Your task to perform on an android device: change the clock display to digital Image 0: 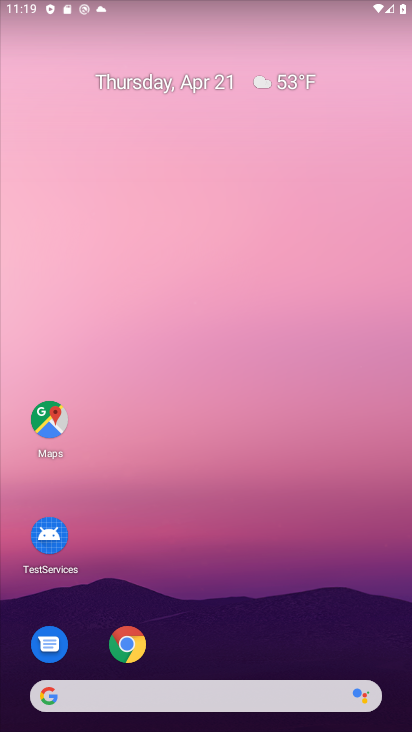
Step 0: drag from (271, 636) to (261, 82)
Your task to perform on an android device: change the clock display to digital Image 1: 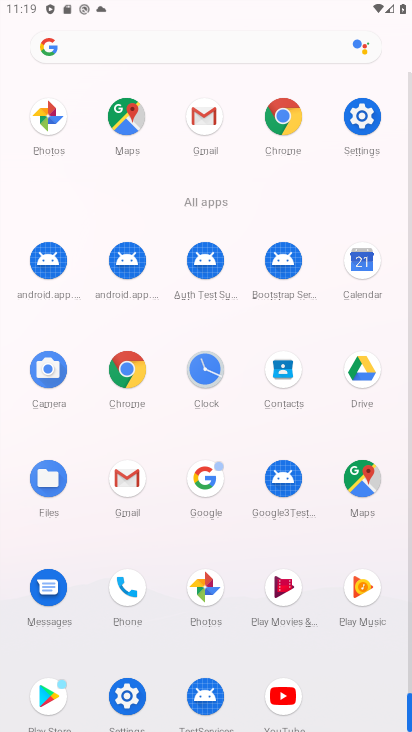
Step 1: click (203, 365)
Your task to perform on an android device: change the clock display to digital Image 2: 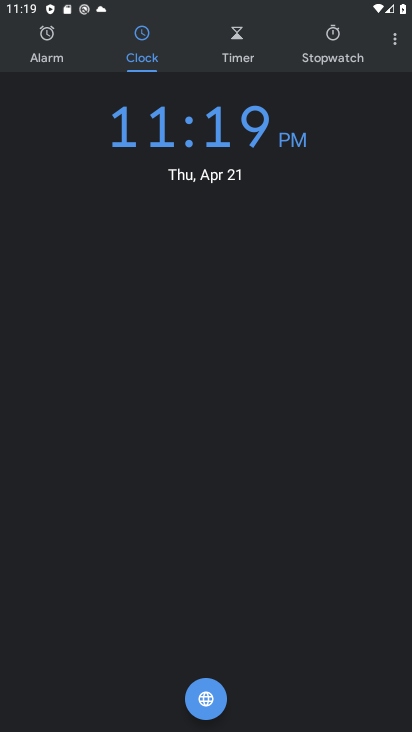
Step 2: click (398, 40)
Your task to perform on an android device: change the clock display to digital Image 3: 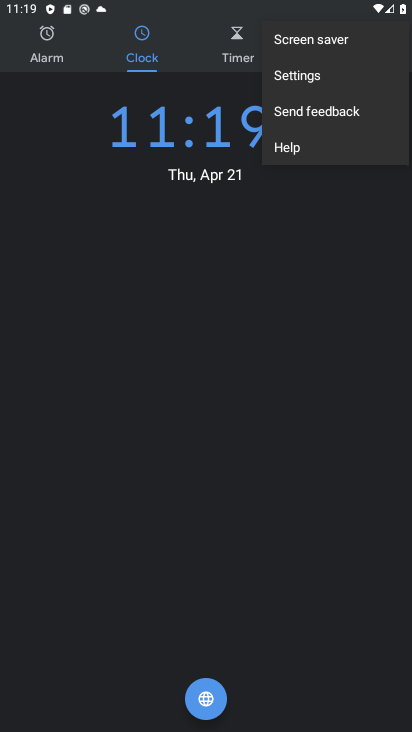
Step 3: click (306, 88)
Your task to perform on an android device: change the clock display to digital Image 4: 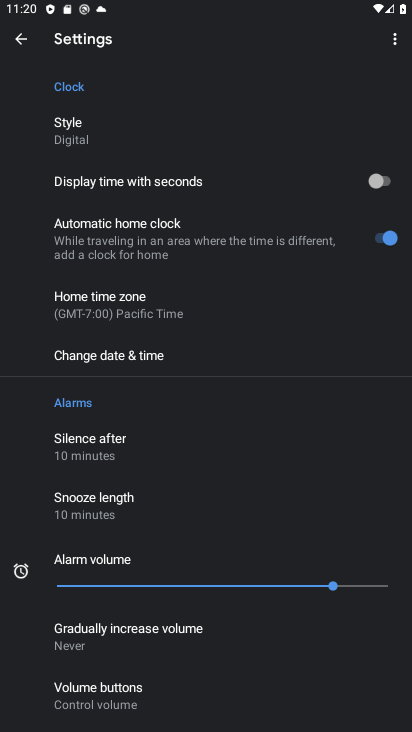
Step 4: task complete